Your task to perform on an android device: turn off translation in the chrome app Image 0: 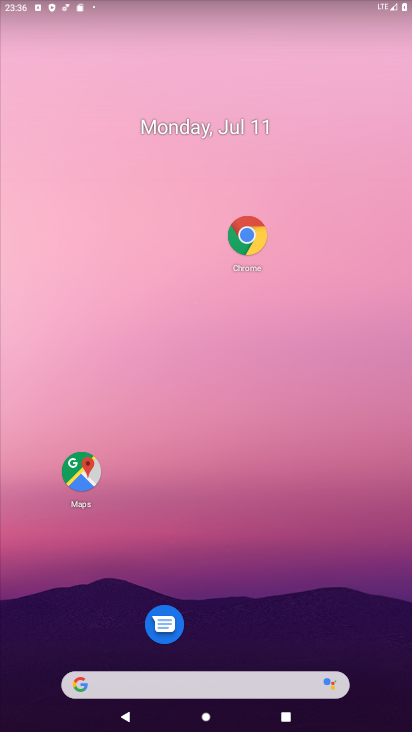
Step 0: click (217, 635)
Your task to perform on an android device: turn off translation in the chrome app Image 1: 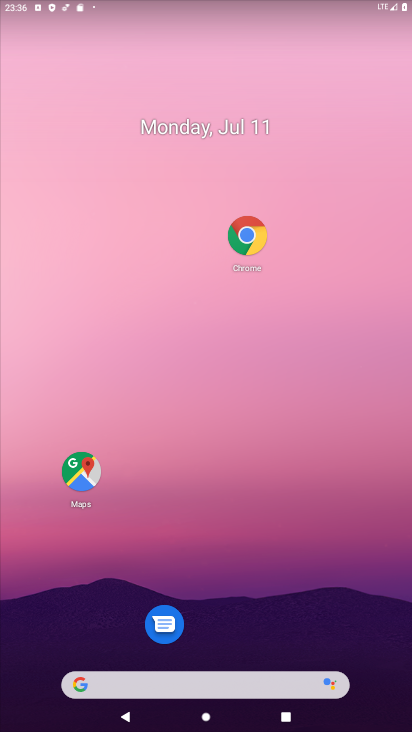
Step 1: click (260, 243)
Your task to perform on an android device: turn off translation in the chrome app Image 2: 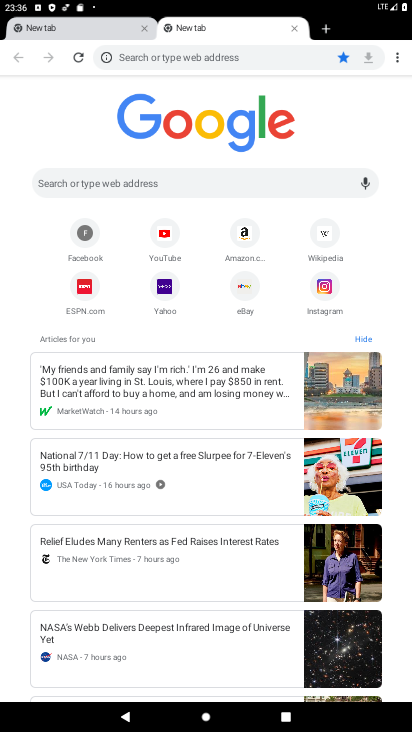
Step 2: click (395, 39)
Your task to perform on an android device: turn off translation in the chrome app Image 3: 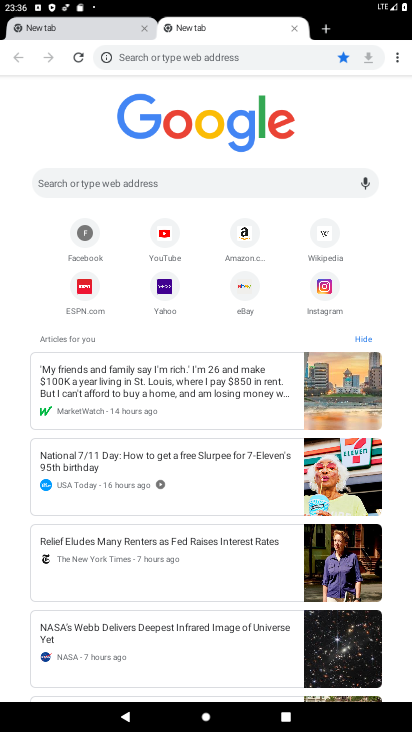
Step 3: click (397, 55)
Your task to perform on an android device: turn off translation in the chrome app Image 4: 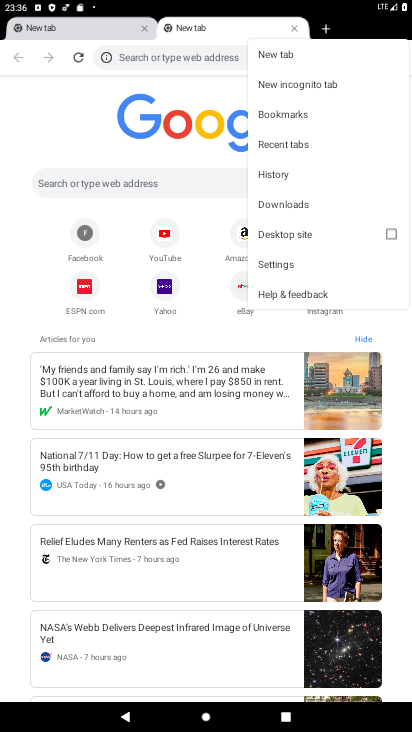
Step 4: click (296, 267)
Your task to perform on an android device: turn off translation in the chrome app Image 5: 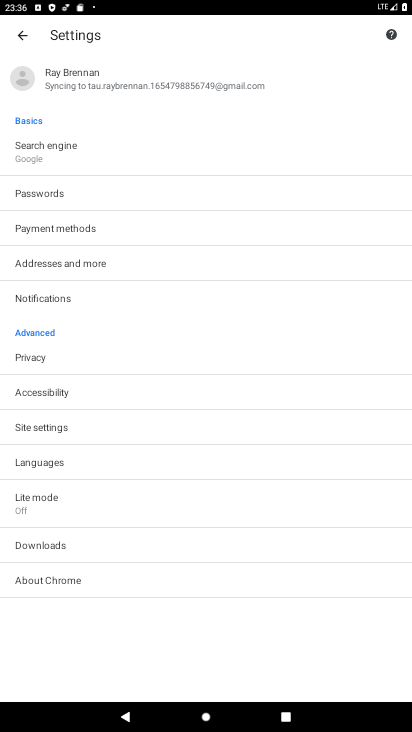
Step 5: click (75, 456)
Your task to perform on an android device: turn off translation in the chrome app Image 6: 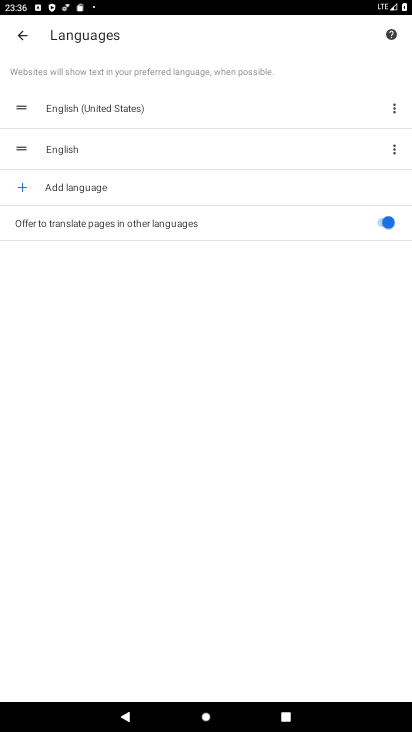
Step 6: click (381, 221)
Your task to perform on an android device: turn off translation in the chrome app Image 7: 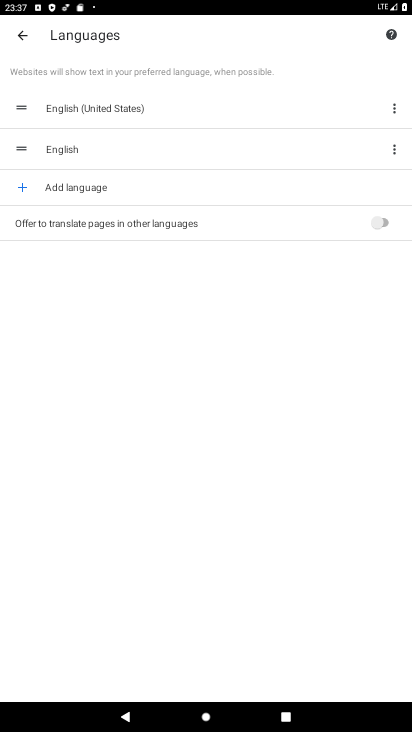
Step 7: task complete